Your task to perform on an android device: turn off priority inbox in the gmail app Image 0: 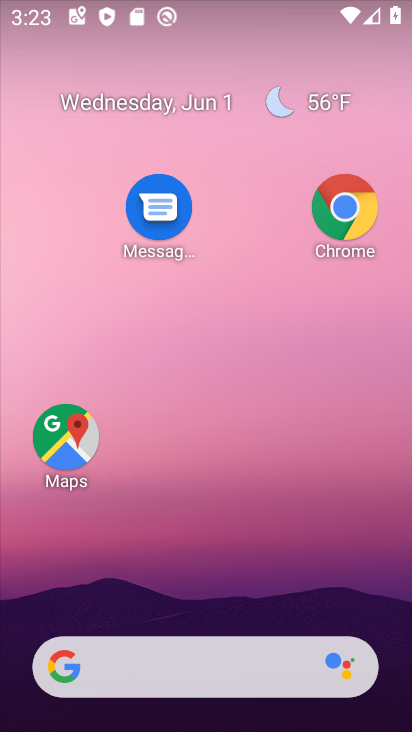
Step 0: drag from (223, 574) to (223, 14)
Your task to perform on an android device: turn off priority inbox in the gmail app Image 1: 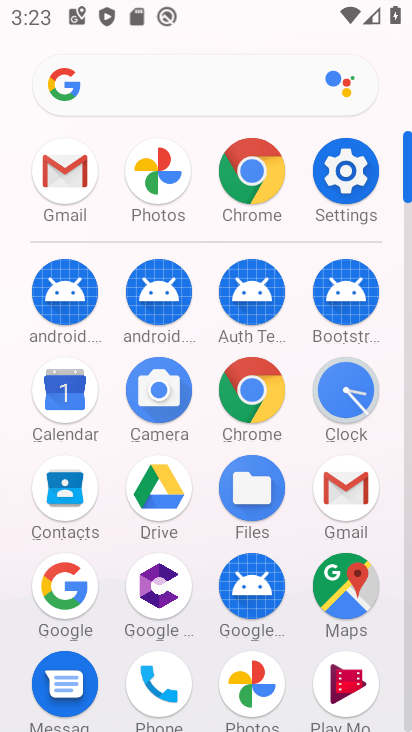
Step 1: click (332, 490)
Your task to perform on an android device: turn off priority inbox in the gmail app Image 2: 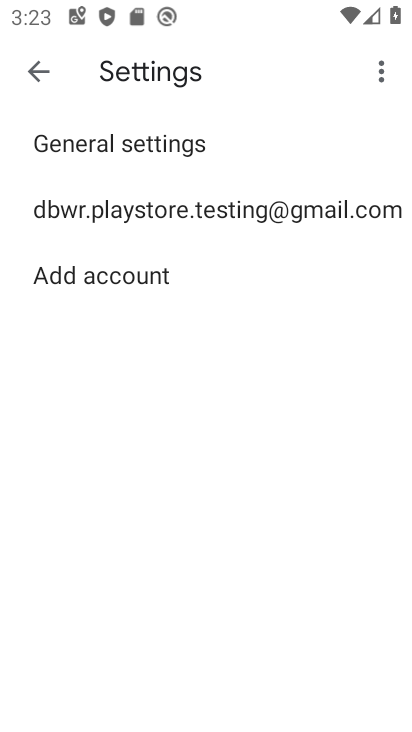
Step 2: click (144, 210)
Your task to perform on an android device: turn off priority inbox in the gmail app Image 3: 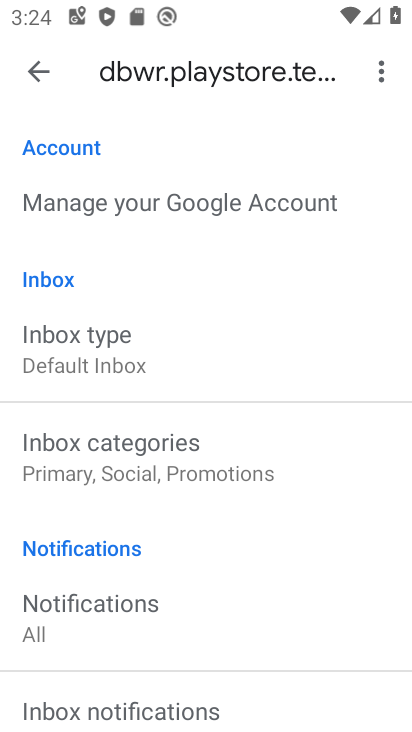
Step 3: click (154, 360)
Your task to perform on an android device: turn off priority inbox in the gmail app Image 4: 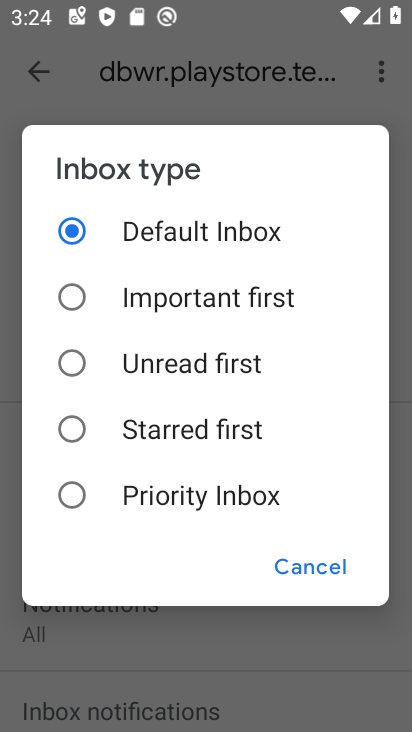
Step 4: task complete